Your task to perform on an android device: Go to sound settings Image 0: 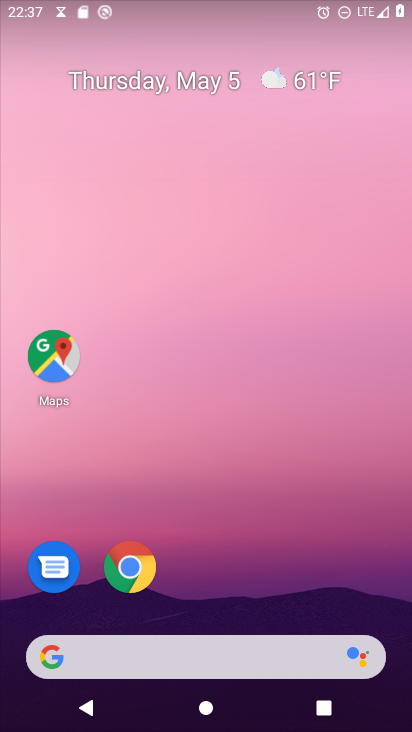
Step 0: drag from (227, 726) to (185, 185)
Your task to perform on an android device: Go to sound settings Image 1: 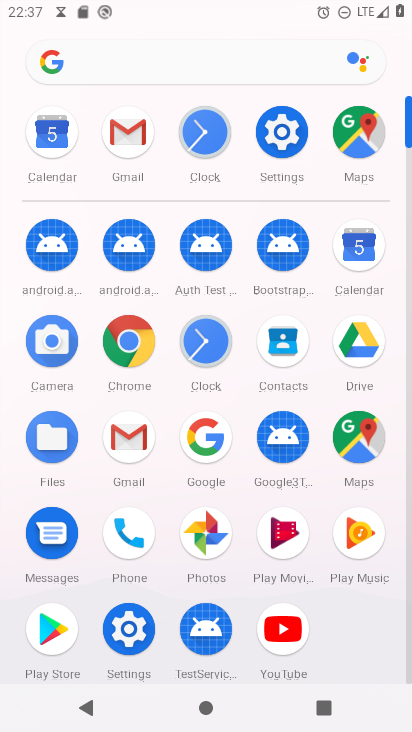
Step 1: click (278, 142)
Your task to perform on an android device: Go to sound settings Image 2: 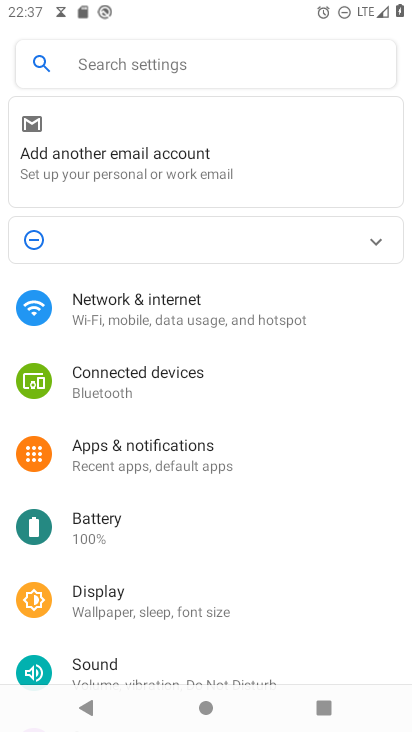
Step 2: click (101, 666)
Your task to perform on an android device: Go to sound settings Image 3: 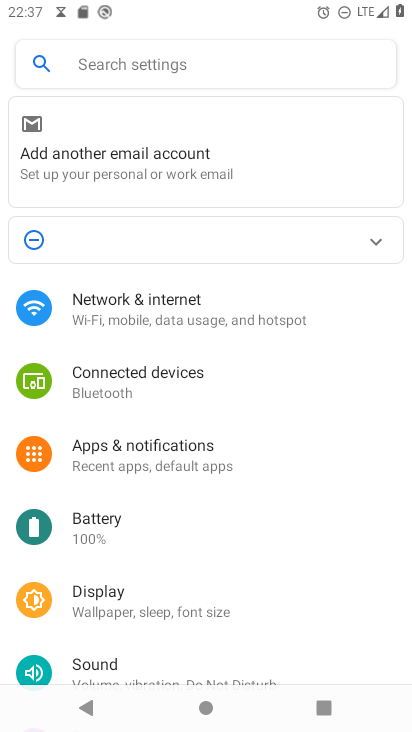
Step 3: click (114, 664)
Your task to perform on an android device: Go to sound settings Image 4: 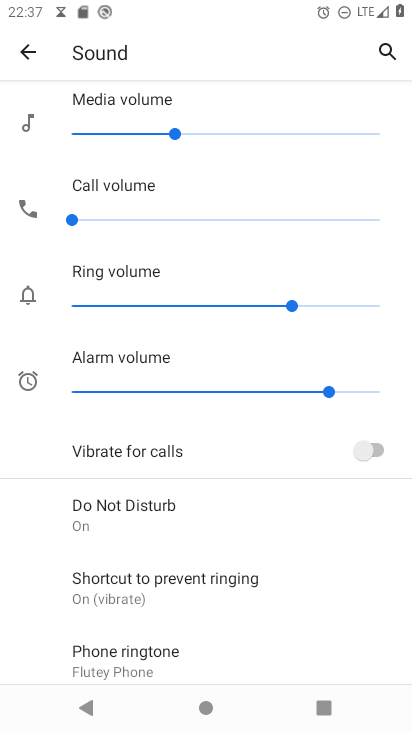
Step 4: task complete